Your task to perform on an android device: set an alarm Image 0: 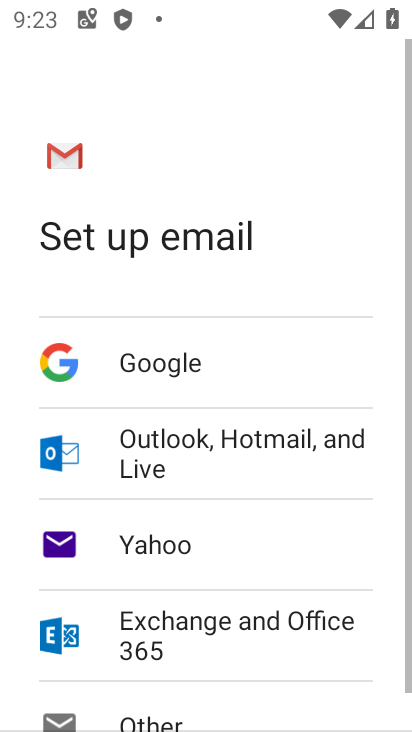
Step 0: press home button
Your task to perform on an android device: set an alarm Image 1: 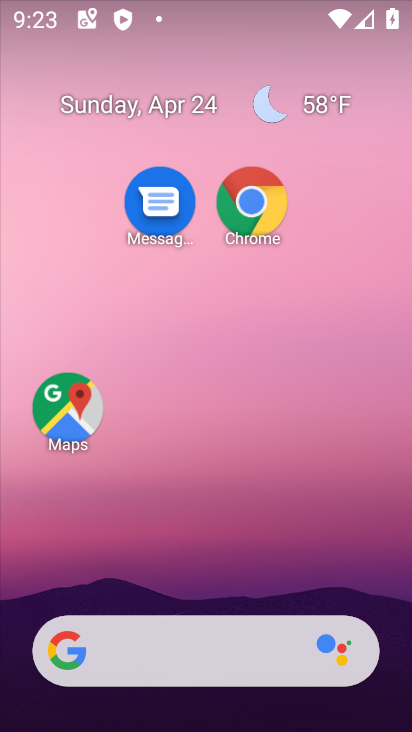
Step 1: drag from (207, 712) to (208, 185)
Your task to perform on an android device: set an alarm Image 2: 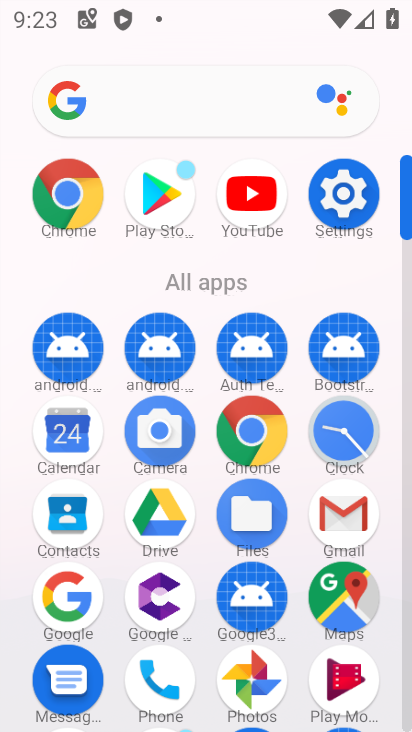
Step 2: click (349, 428)
Your task to perform on an android device: set an alarm Image 3: 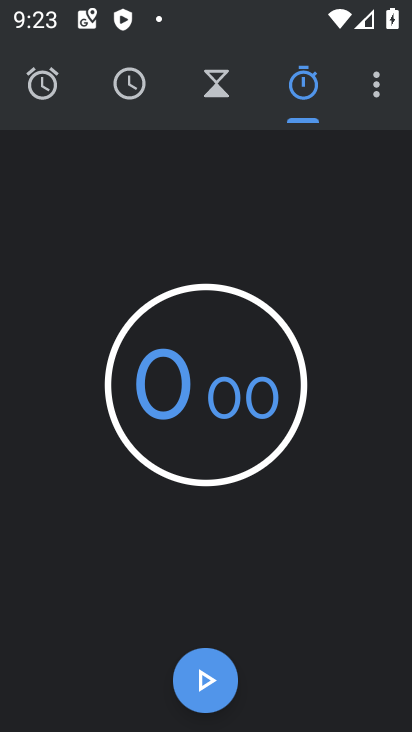
Step 3: click (44, 87)
Your task to perform on an android device: set an alarm Image 4: 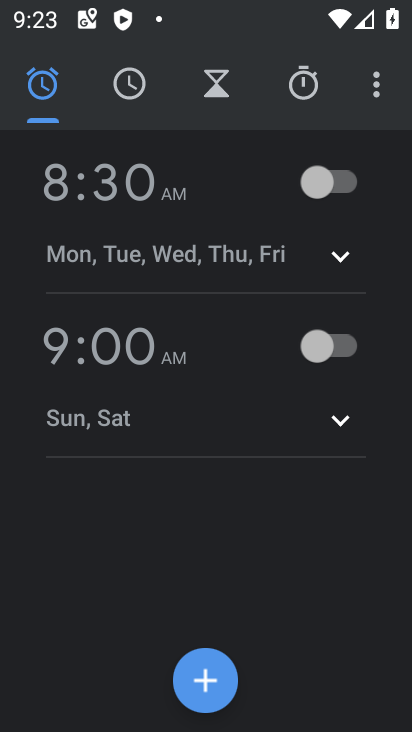
Step 4: click (208, 679)
Your task to perform on an android device: set an alarm Image 5: 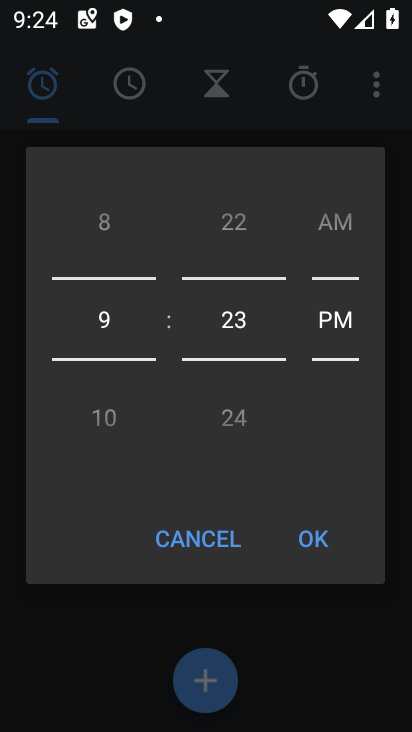
Step 5: click (109, 415)
Your task to perform on an android device: set an alarm Image 6: 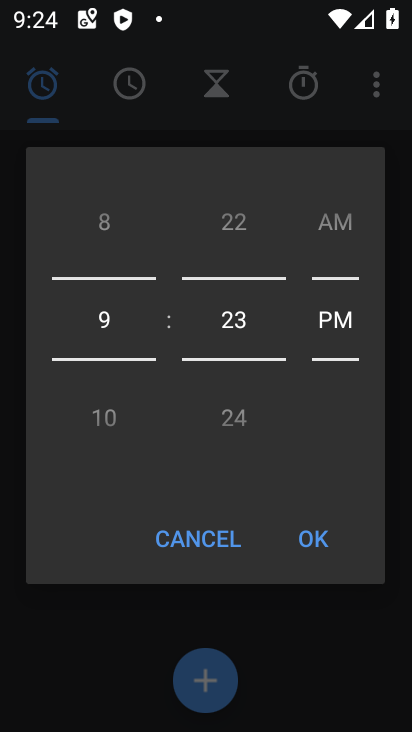
Step 6: drag from (110, 422) to (102, 162)
Your task to perform on an android device: set an alarm Image 7: 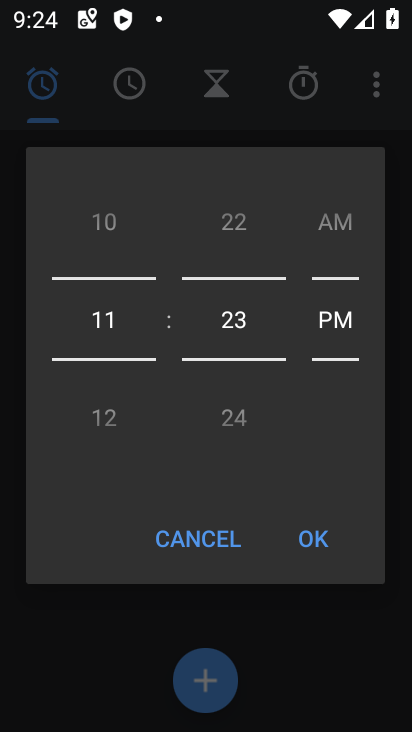
Step 7: drag from (341, 237) to (353, 478)
Your task to perform on an android device: set an alarm Image 8: 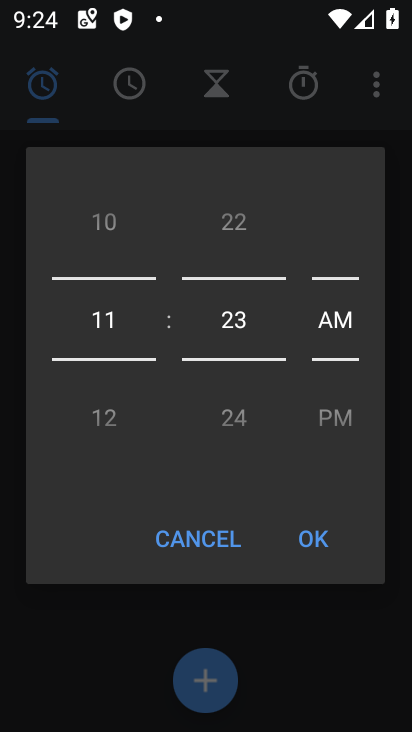
Step 8: click (317, 536)
Your task to perform on an android device: set an alarm Image 9: 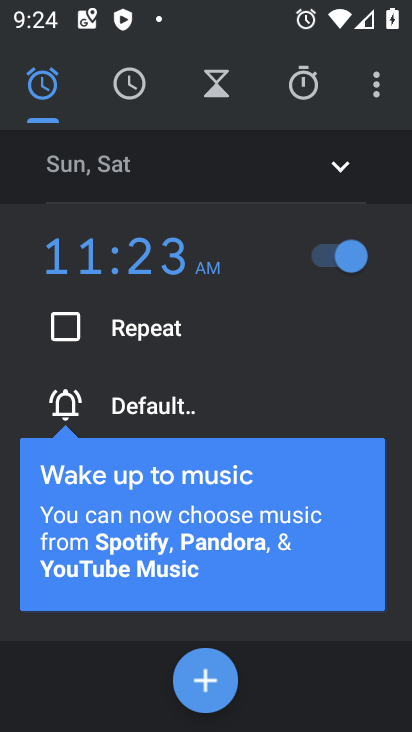
Step 9: task complete